Your task to perform on an android device: open a bookmark in the chrome app Image 0: 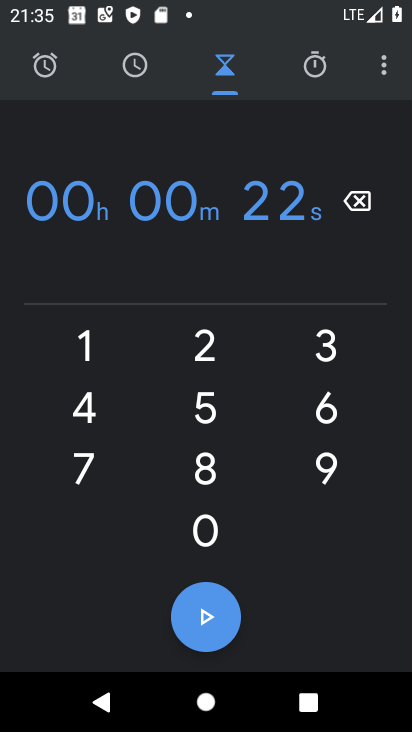
Step 0: press home button
Your task to perform on an android device: open a bookmark in the chrome app Image 1: 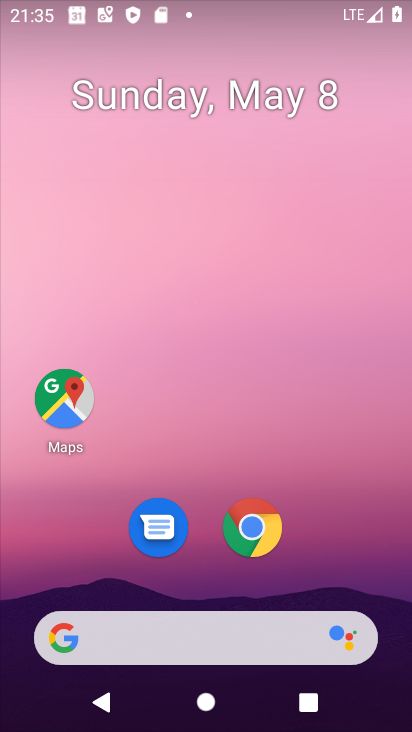
Step 1: click (253, 524)
Your task to perform on an android device: open a bookmark in the chrome app Image 2: 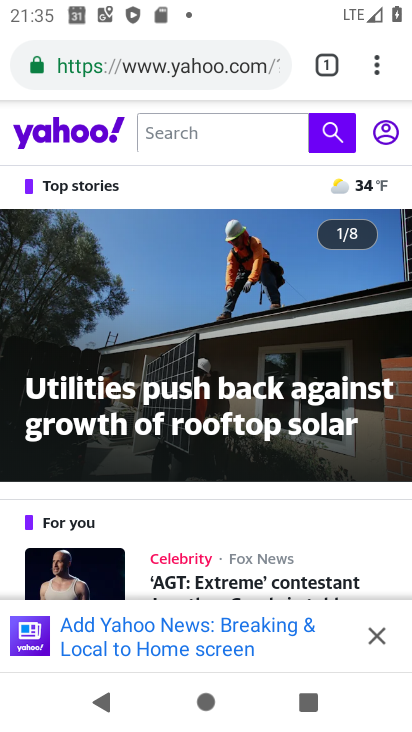
Step 2: click (369, 62)
Your task to perform on an android device: open a bookmark in the chrome app Image 3: 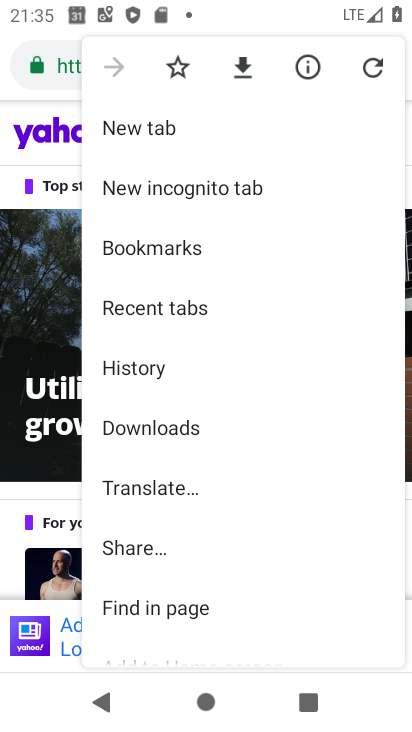
Step 3: click (189, 248)
Your task to perform on an android device: open a bookmark in the chrome app Image 4: 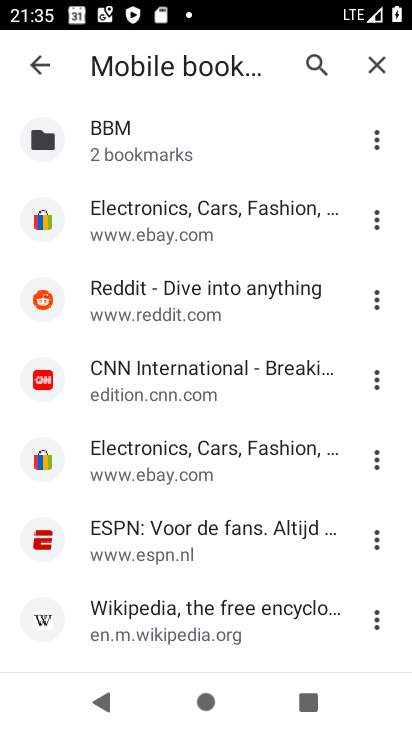
Step 4: click (158, 213)
Your task to perform on an android device: open a bookmark in the chrome app Image 5: 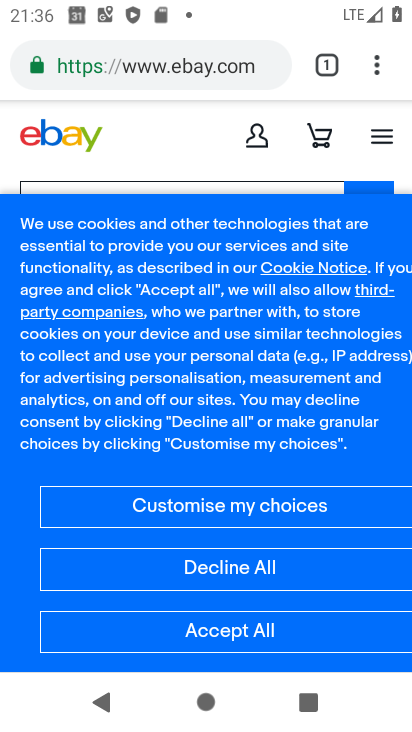
Step 5: task complete